Your task to perform on an android device: open a bookmark in the chrome app Image 0: 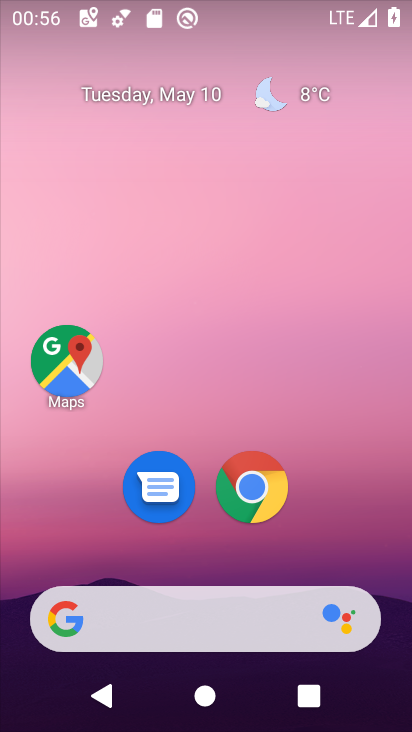
Step 0: click (245, 478)
Your task to perform on an android device: open a bookmark in the chrome app Image 1: 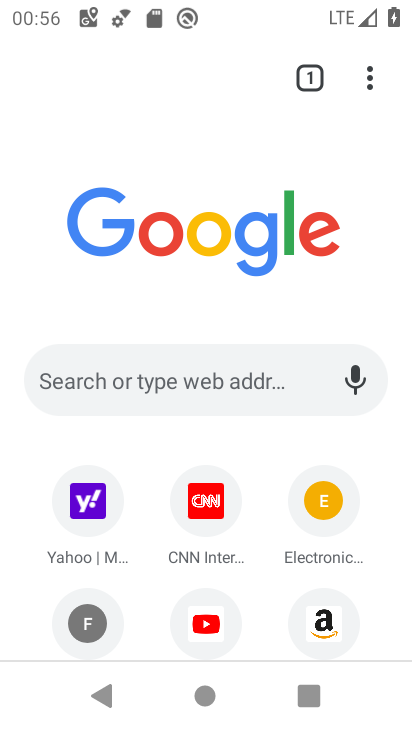
Step 1: click (365, 78)
Your task to perform on an android device: open a bookmark in the chrome app Image 2: 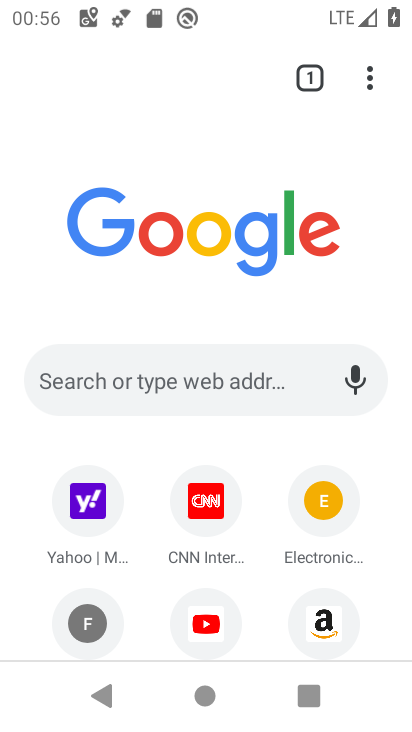
Step 2: click (363, 71)
Your task to perform on an android device: open a bookmark in the chrome app Image 3: 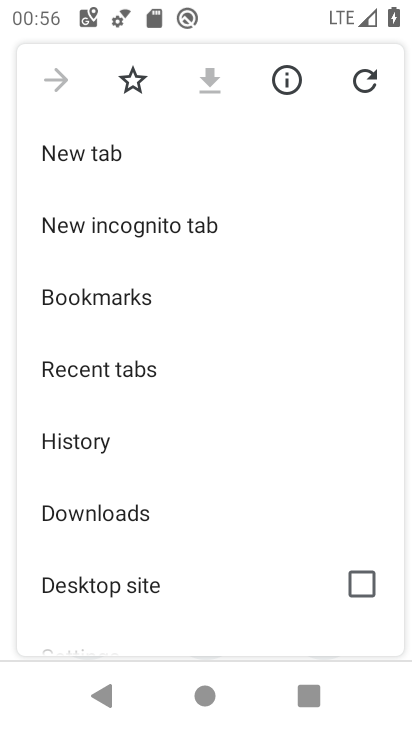
Step 3: click (157, 296)
Your task to perform on an android device: open a bookmark in the chrome app Image 4: 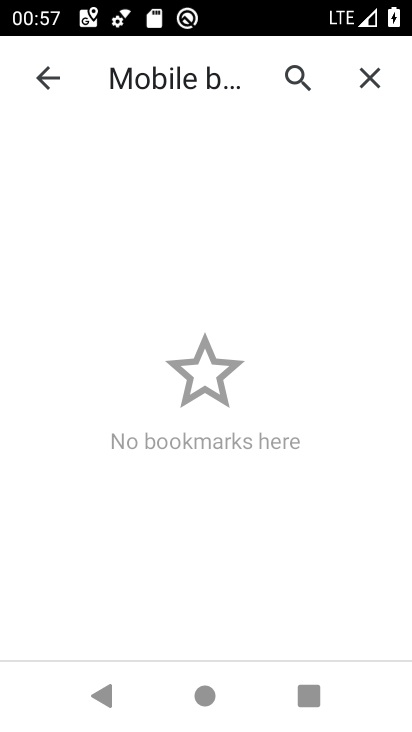
Step 4: task complete